Your task to perform on an android device: What's on my calendar today? Image 0: 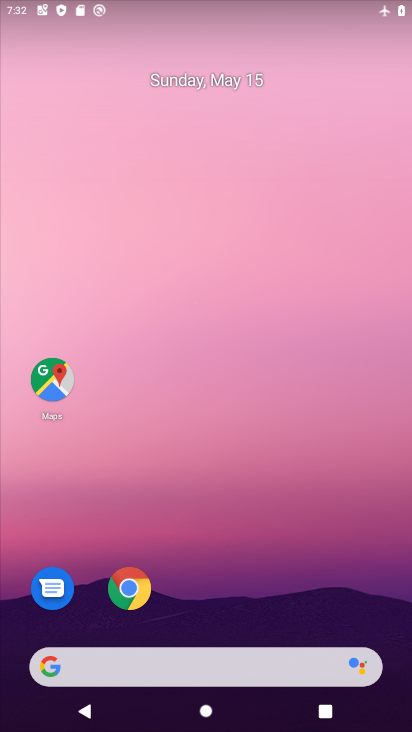
Step 0: drag from (368, 566) to (271, 0)
Your task to perform on an android device: What's on my calendar today? Image 1: 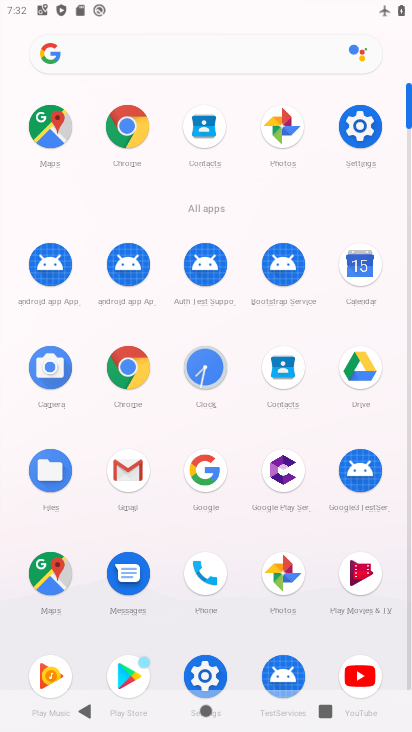
Step 1: click (362, 314)
Your task to perform on an android device: What's on my calendar today? Image 2: 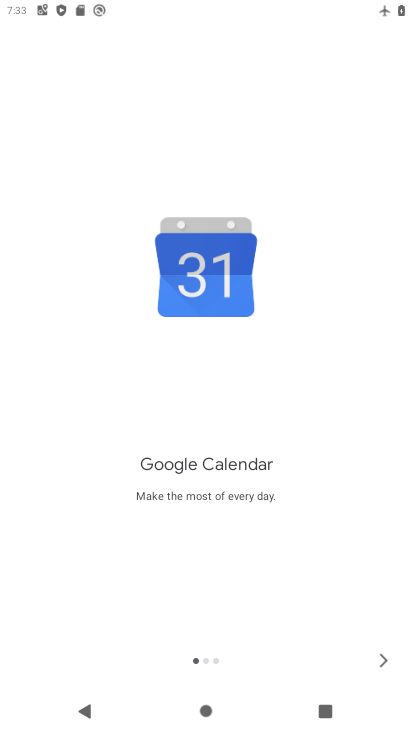
Step 2: click (384, 653)
Your task to perform on an android device: What's on my calendar today? Image 3: 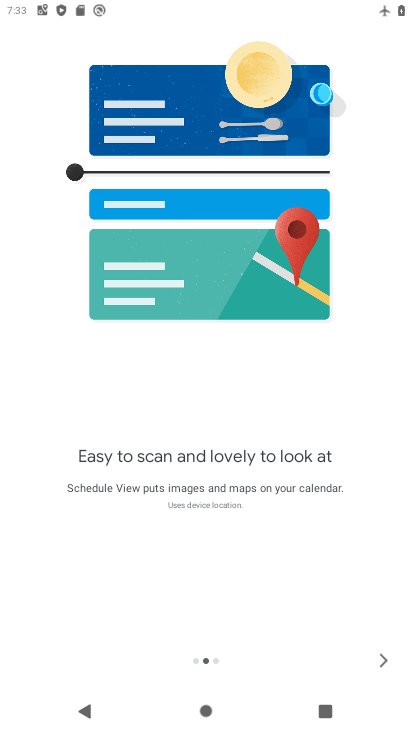
Step 3: click (384, 653)
Your task to perform on an android device: What's on my calendar today? Image 4: 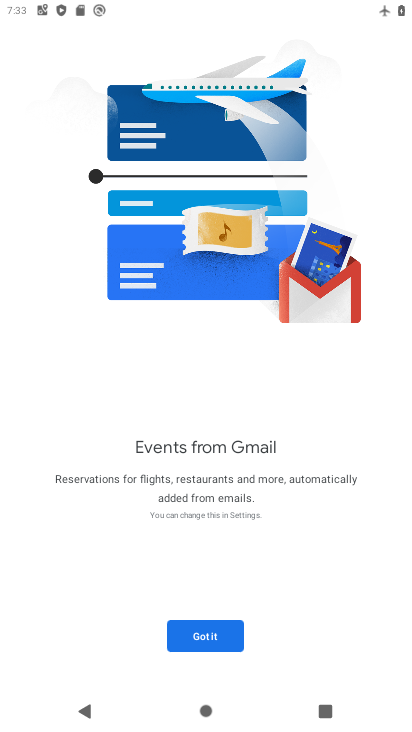
Step 4: click (178, 635)
Your task to perform on an android device: What's on my calendar today? Image 5: 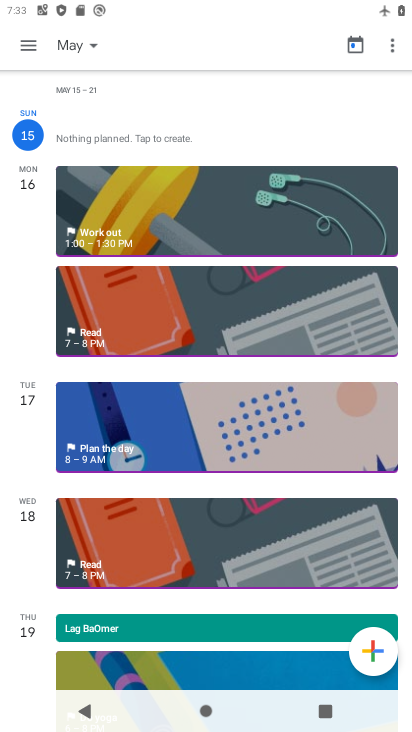
Step 5: click (80, 43)
Your task to perform on an android device: What's on my calendar today? Image 6: 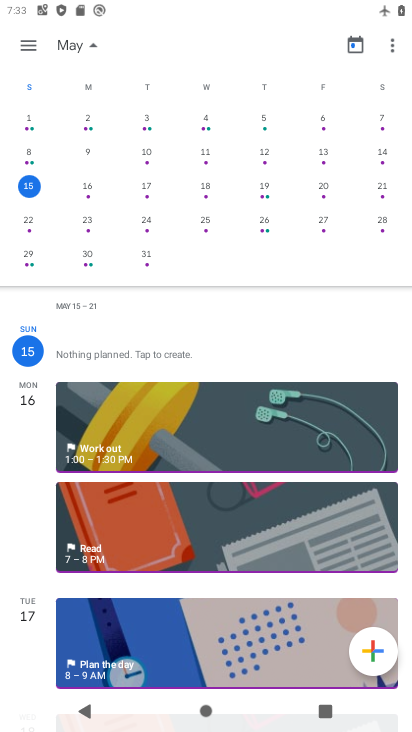
Step 6: click (90, 192)
Your task to perform on an android device: What's on my calendar today? Image 7: 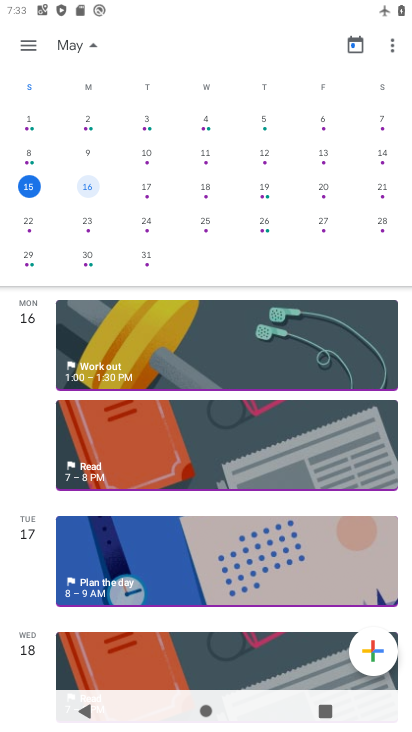
Step 7: click (204, 336)
Your task to perform on an android device: What's on my calendar today? Image 8: 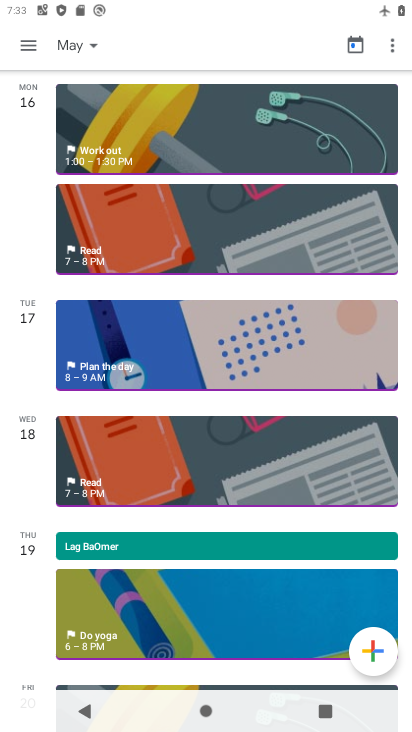
Step 8: task complete